Your task to perform on an android device: turn off smart reply in the gmail app Image 0: 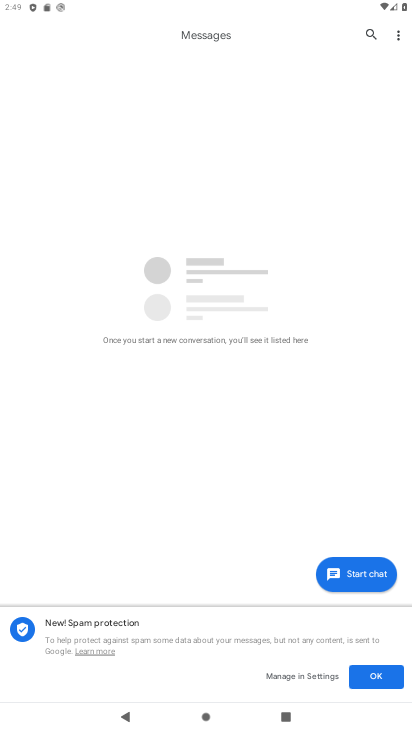
Step 0: press home button
Your task to perform on an android device: turn off smart reply in the gmail app Image 1: 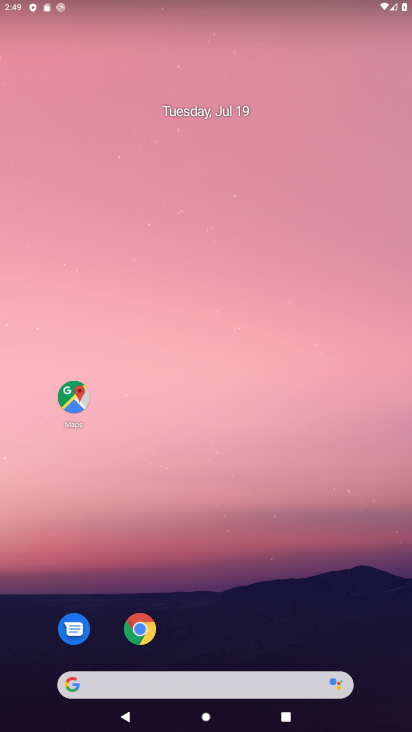
Step 1: drag from (178, 681) to (150, 67)
Your task to perform on an android device: turn off smart reply in the gmail app Image 2: 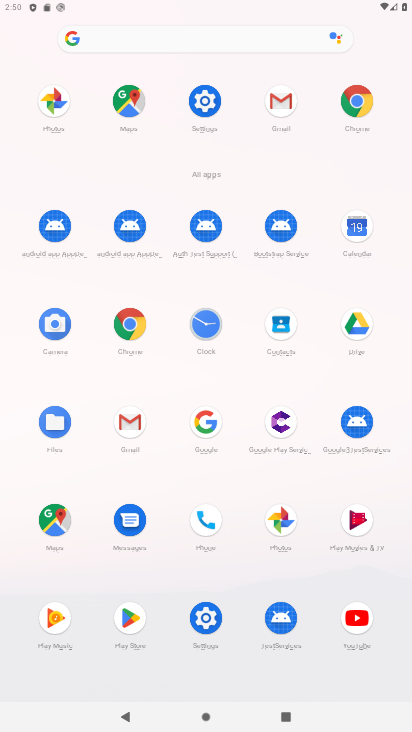
Step 2: click (125, 431)
Your task to perform on an android device: turn off smart reply in the gmail app Image 3: 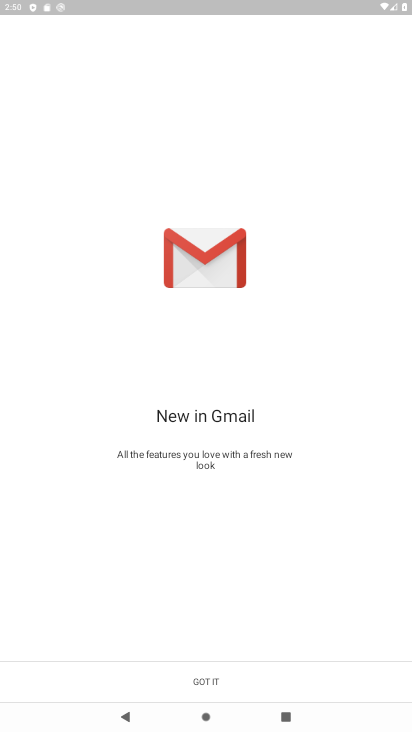
Step 3: click (204, 685)
Your task to perform on an android device: turn off smart reply in the gmail app Image 4: 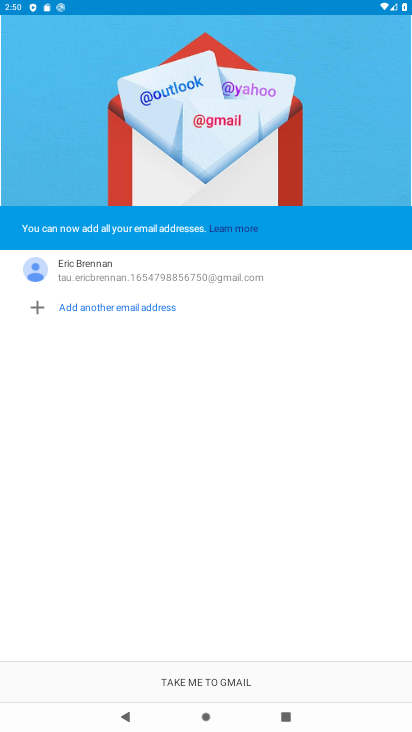
Step 4: click (212, 680)
Your task to perform on an android device: turn off smart reply in the gmail app Image 5: 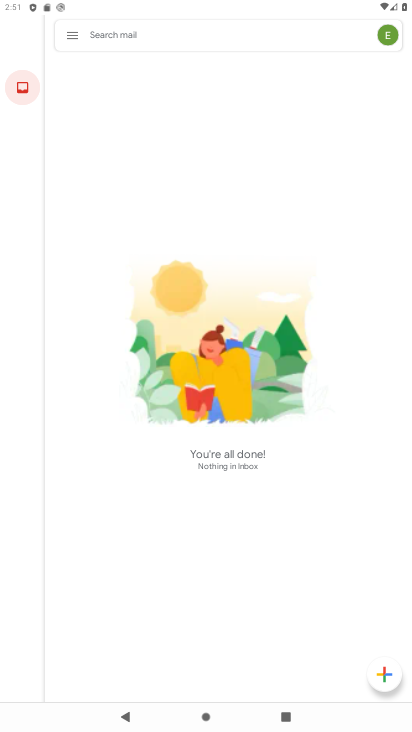
Step 5: click (72, 33)
Your task to perform on an android device: turn off smart reply in the gmail app Image 6: 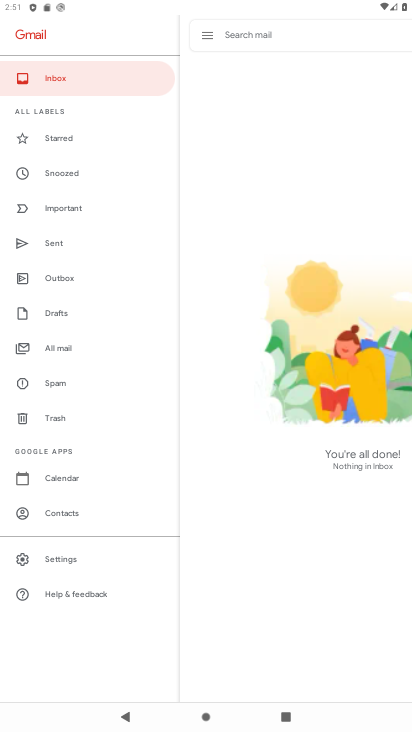
Step 6: click (60, 571)
Your task to perform on an android device: turn off smart reply in the gmail app Image 7: 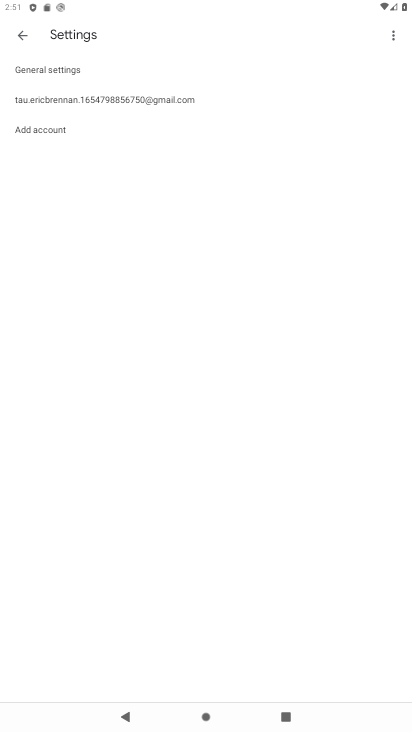
Step 7: click (100, 92)
Your task to perform on an android device: turn off smart reply in the gmail app Image 8: 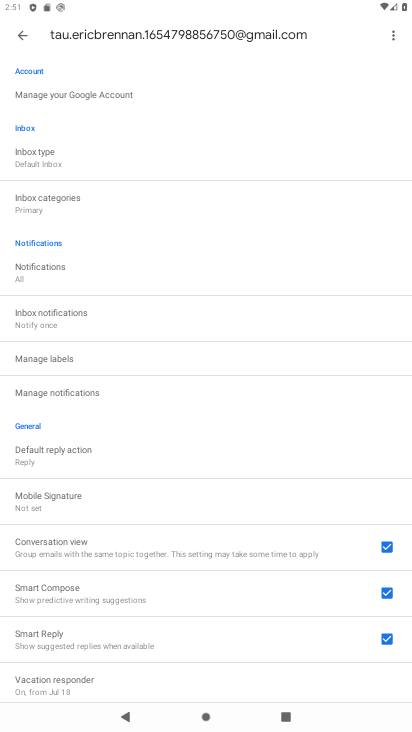
Step 8: click (388, 645)
Your task to perform on an android device: turn off smart reply in the gmail app Image 9: 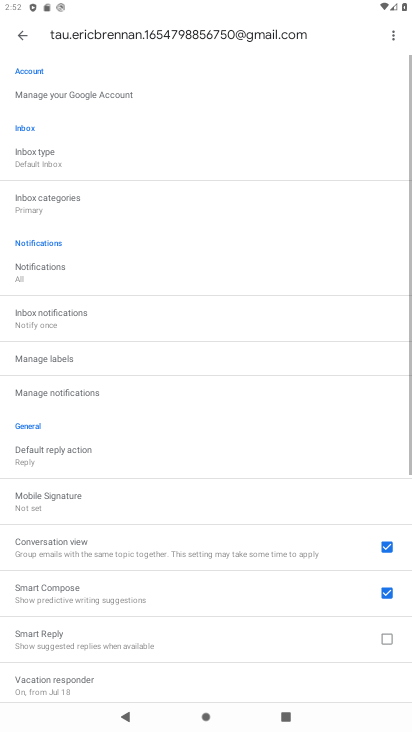
Step 9: task complete